Your task to perform on an android device: turn vacation reply on in the gmail app Image 0: 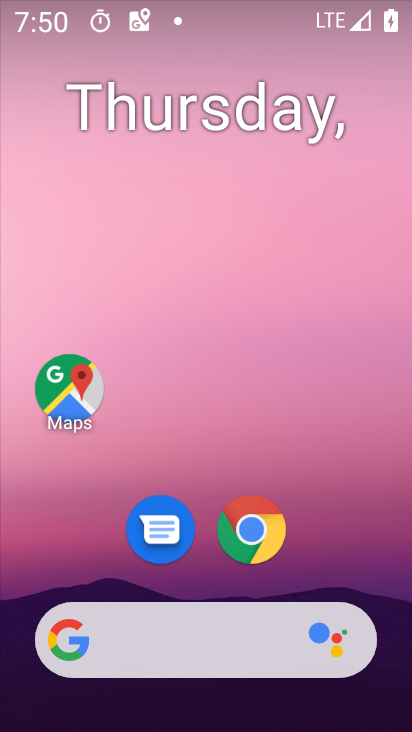
Step 0: drag from (386, 559) to (372, 158)
Your task to perform on an android device: turn vacation reply on in the gmail app Image 1: 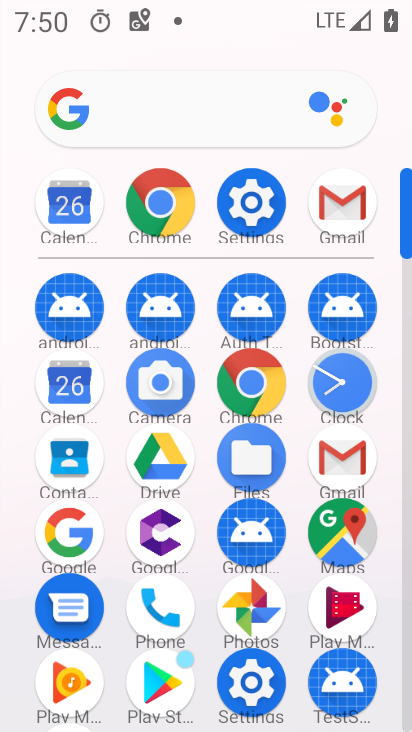
Step 1: click (357, 458)
Your task to perform on an android device: turn vacation reply on in the gmail app Image 2: 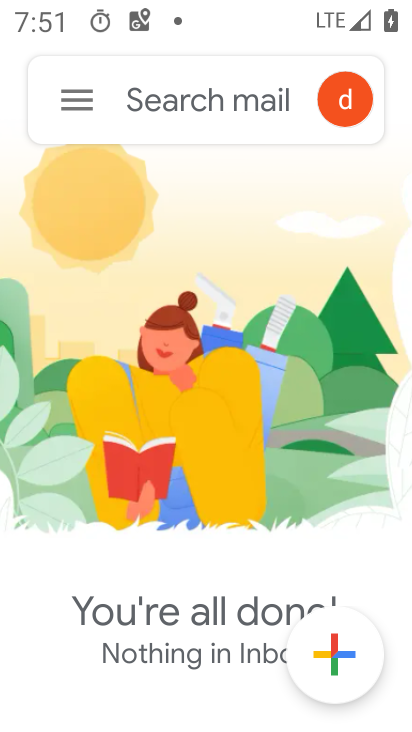
Step 2: click (75, 97)
Your task to perform on an android device: turn vacation reply on in the gmail app Image 3: 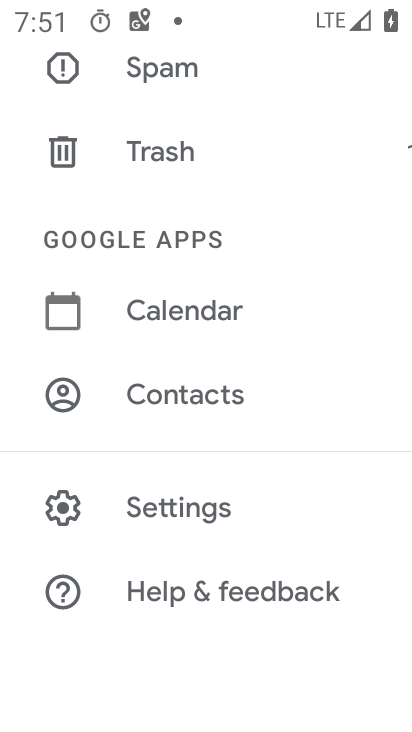
Step 3: drag from (333, 208) to (333, 318)
Your task to perform on an android device: turn vacation reply on in the gmail app Image 4: 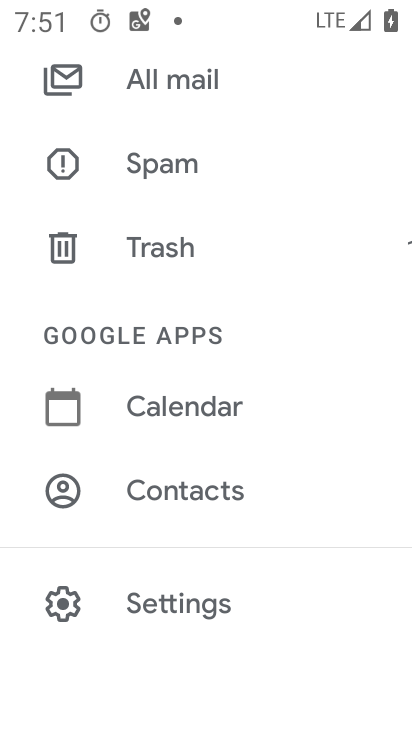
Step 4: drag from (334, 200) to (331, 324)
Your task to perform on an android device: turn vacation reply on in the gmail app Image 5: 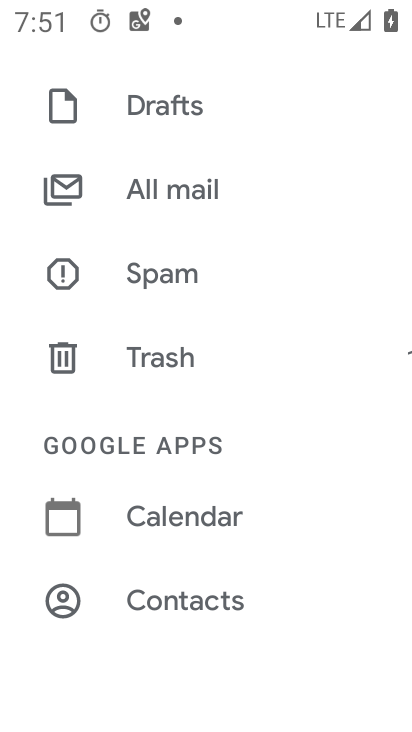
Step 5: drag from (329, 202) to (331, 312)
Your task to perform on an android device: turn vacation reply on in the gmail app Image 6: 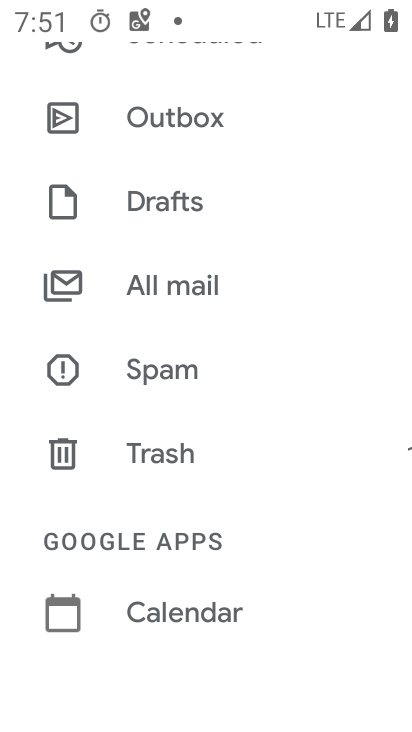
Step 6: drag from (353, 185) to (358, 296)
Your task to perform on an android device: turn vacation reply on in the gmail app Image 7: 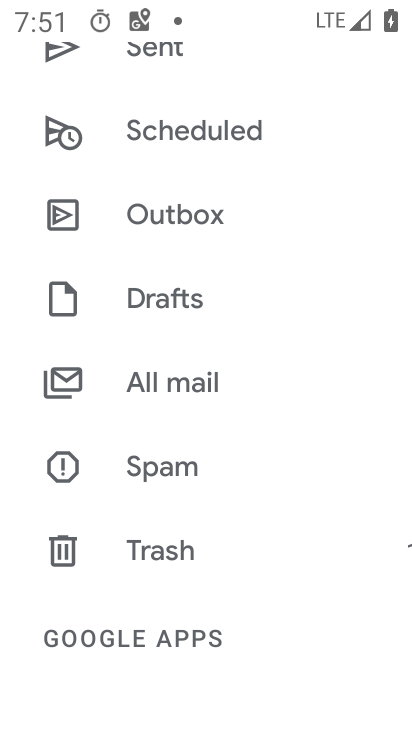
Step 7: drag from (351, 198) to (351, 293)
Your task to perform on an android device: turn vacation reply on in the gmail app Image 8: 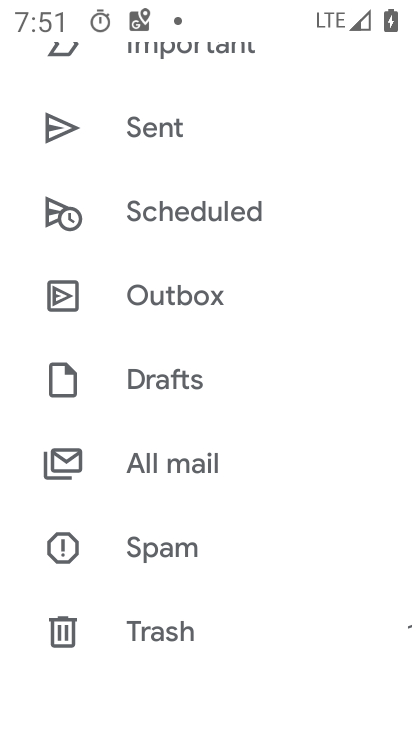
Step 8: drag from (350, 204) to (352, 298)
Your task to perform on an android device: turn vacation reply on in the gmail app Image 9: 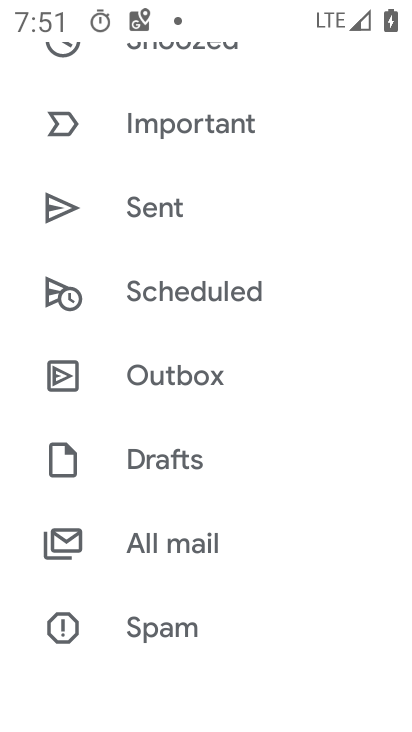
Step 9: drag from (345, 211) to (345, 294)
Your task to perform on an android device: turn vacation reply on in the gmail app Image 10: 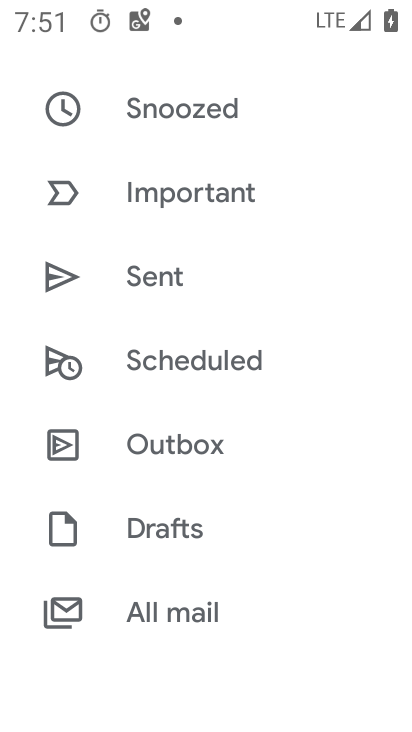
Step 10: drag from (345, 225) to (348, 328)
Your task to perform on an android device: turn vacation reply on in the gmail app Image 11: 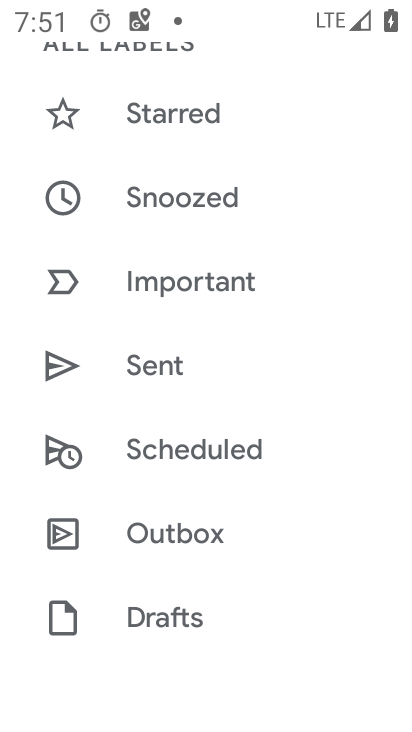
Step 11: drag from (354, 219) to (343, 346)
Your task to perform on an android device: turn vacation reply on in the gmail app Image 12: 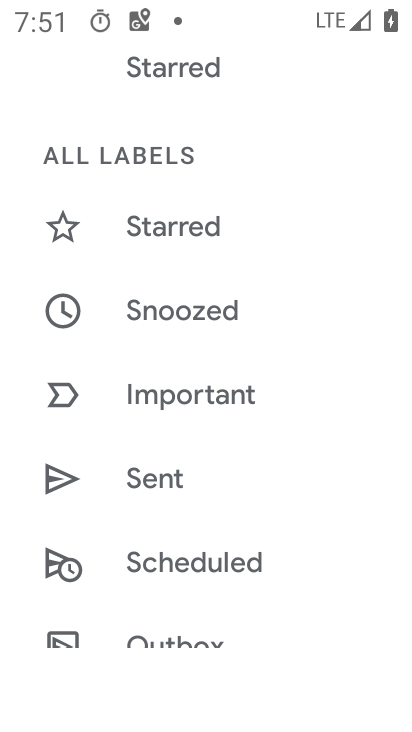
Step 12: drag from (344, 159) to (342, 306)
Your task to perform on an android device: turn vacation reply on in the gmail app Image 13: 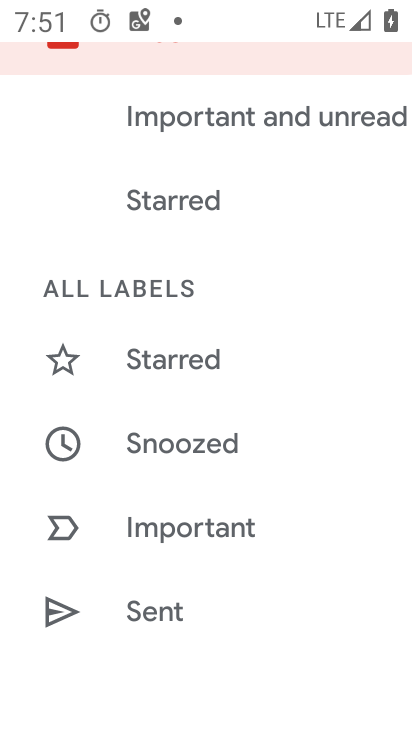
Step 13: drag from (348, 182) to (340, 303)
Your task to perform on an android device: turn vacation reply on in the gmail app Image 14: 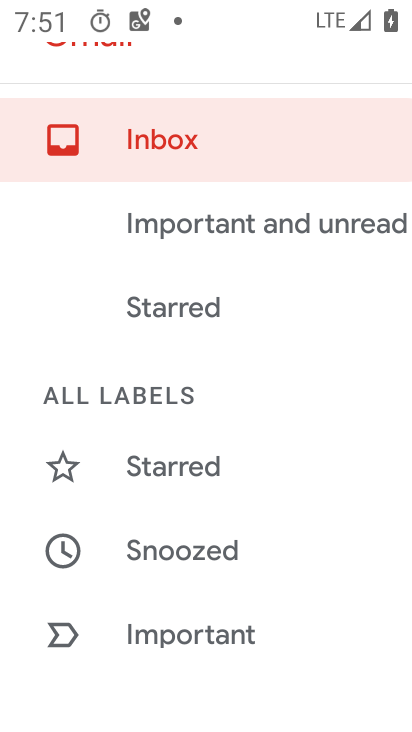
Step 14: drag from (341, 362) to (329, 260)
Your task to perform on an android device: turn vacation reply on in the gmail app Image 15: 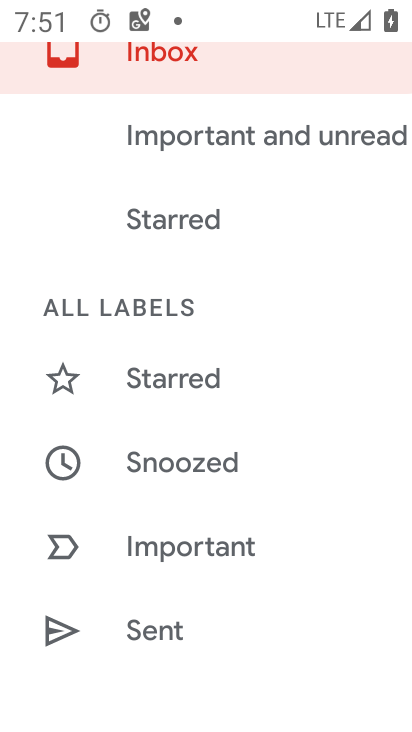
Step 15: drag from (329, 394) to (327, 283)
Your task to perform on an android device: turn vacation reply on in the gmail app Image 16: 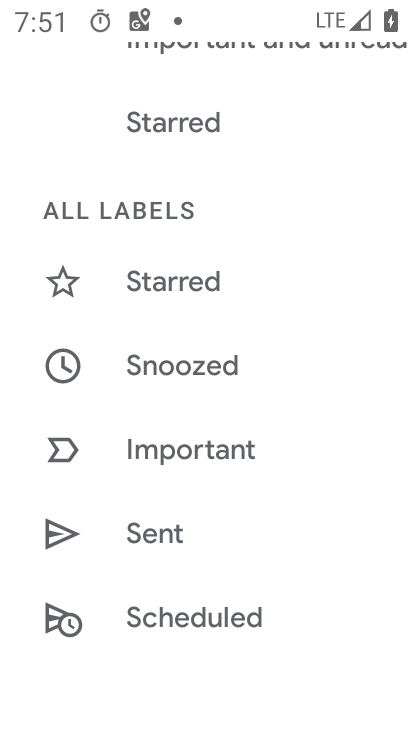
Step 16: drag from (326, 397) to (331, 293)
Your task to perform on an android device: turn vacation reply on in the gmail app Image 17: 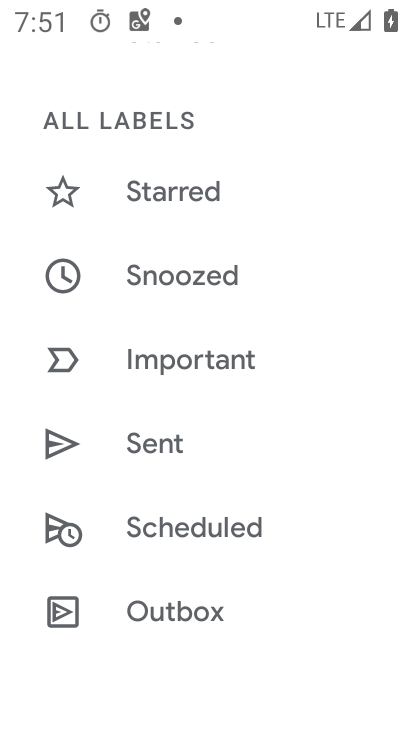
Step 17: drag from (342, 427) to (339, 316)
Your task to perform on an android device: turn vacation reply on in the gmail app Image 18: 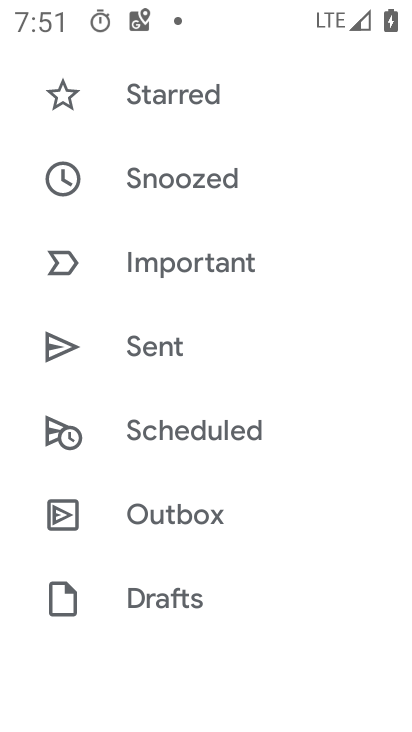
Step 18: drag from (332, 449) to (337, 353)
Your task to perform on an android device: turn vacation reply on in the gmail app Image 19: 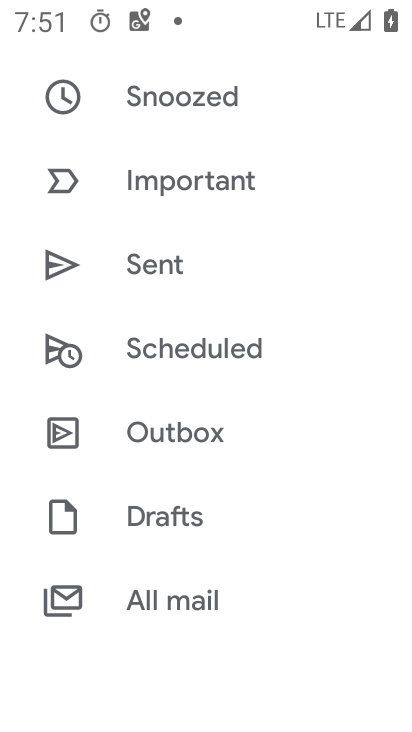
Step 19: drag from (336, 462) to (342, 348)
Your task to perform on an android device: turn vacation reply on in the gmail app Image 20: 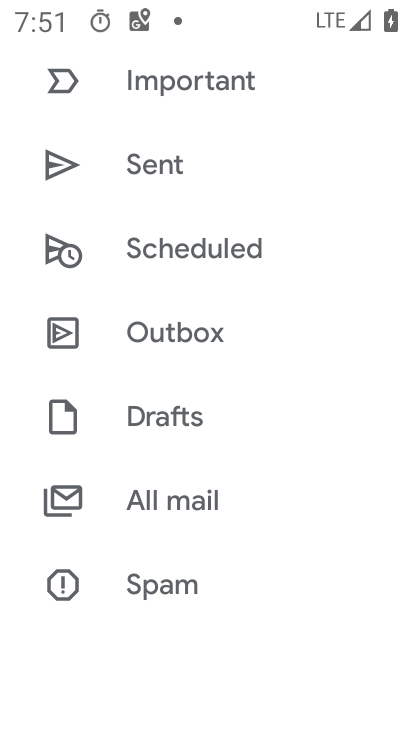
Step 20: drag from (347, 488) to (352, 342)
Your task to perform on an android device: turn vacation reply on in the gmail app Image 21: 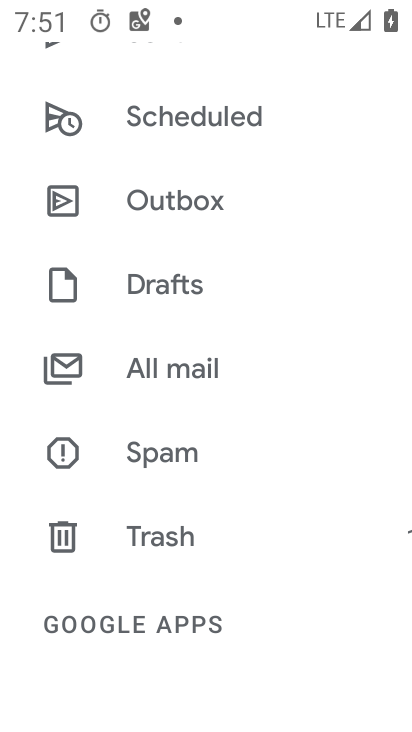
Step 21: drag from (355, 507) to (349, 289)
Your task to perform on an android device: turn vacation reply on in the gmail app Image 22: 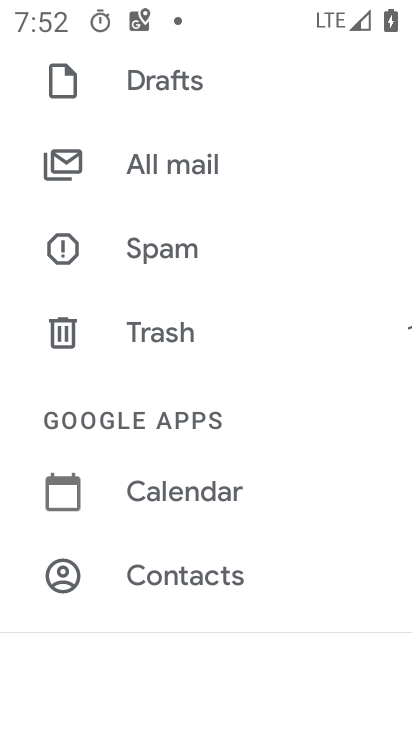
Step 22: drag from (357, 507) to (347, 274)
Your task to perform on an android device: turn vacation reply on in the gmail app Image 23: 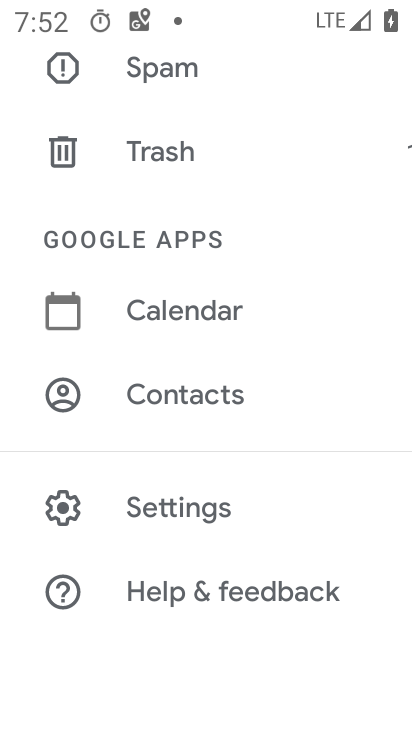
Step 23: click (294, 530)
Your task to perform on an android device: turn vacation reply on in the gmail app Image 24: 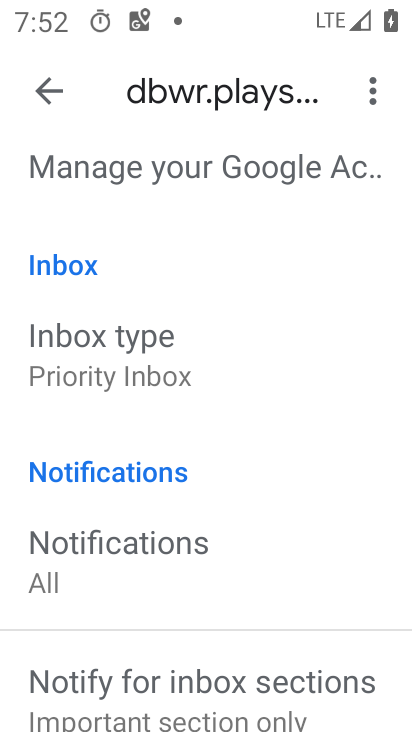
Step 24: drag from (294, 530) to (303, 425)
Your task to perform on an android device: turn vacation reply on in the gmail app Image 25: 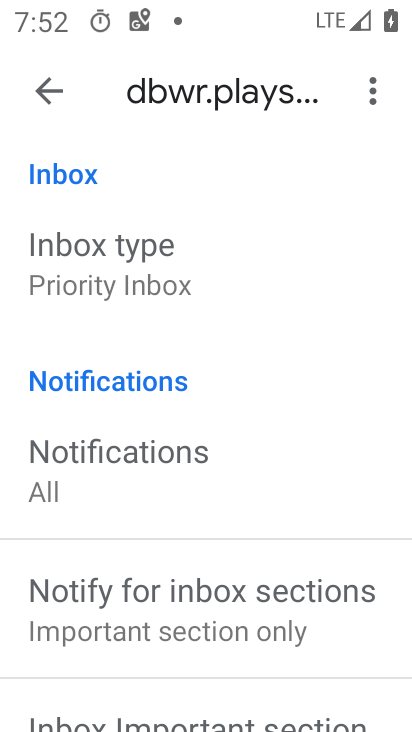
Step 25: drag from (321, 551) to (339, 451)
Your task to perform on an android device: turn vacation reply on in the gmail app Image 26: 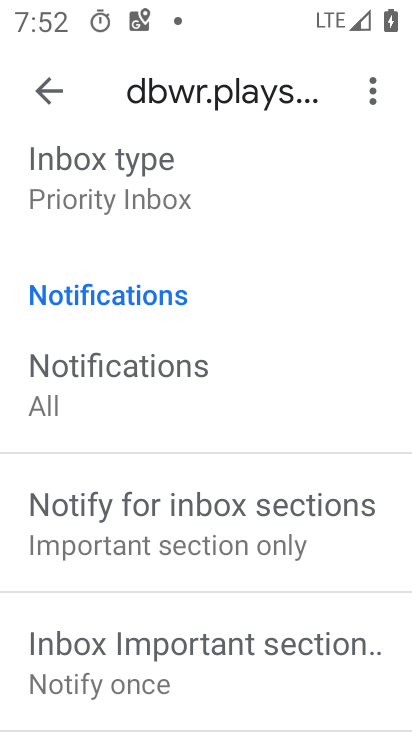
Step 26: drag from (347, 576) to (354, 463)
Your task to perform on an android device: turn vacation reply on in the gmail app Image 27: 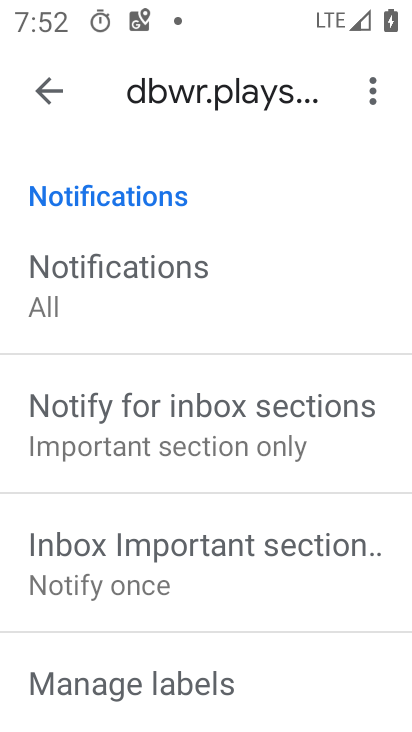
Step 27: drag from (346, 606) to (354, 498)
Your task to perform on an android device: turn vacation reply on in the gmail app Image 28: 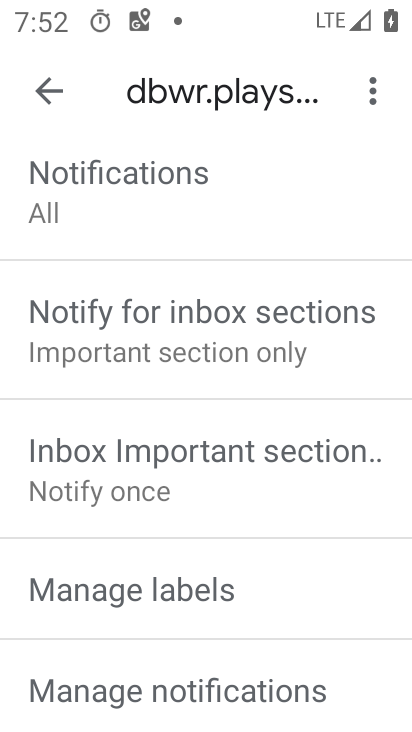
Step 28: drag from (348, 604) to (351, 512)
Your task to perform on an android device: turn vacation reply on in the gmail app Image 29: 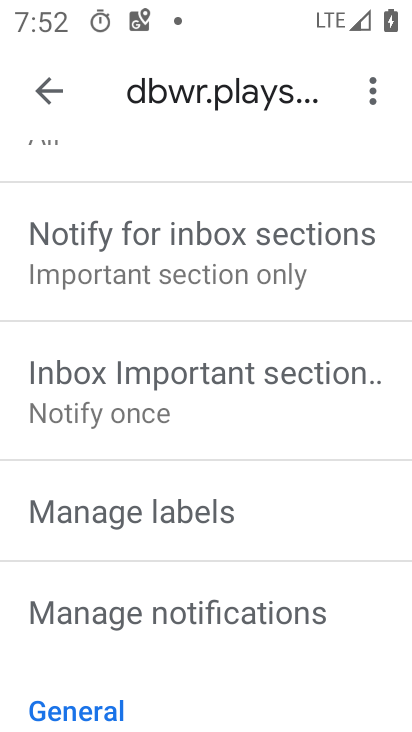
Step 29: drag from (349, 632) to (349, 532)
Your task to perform on an android device: turn vacation reply on in the gmail app Image 30: 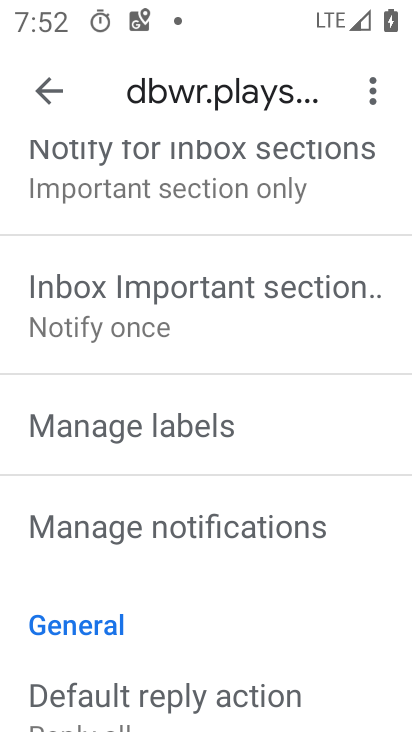
Step 30: drag from (352, 622) to (359, 531)
Your task to perform on an android device: turn vacation reply on in the gmail app Image 31: 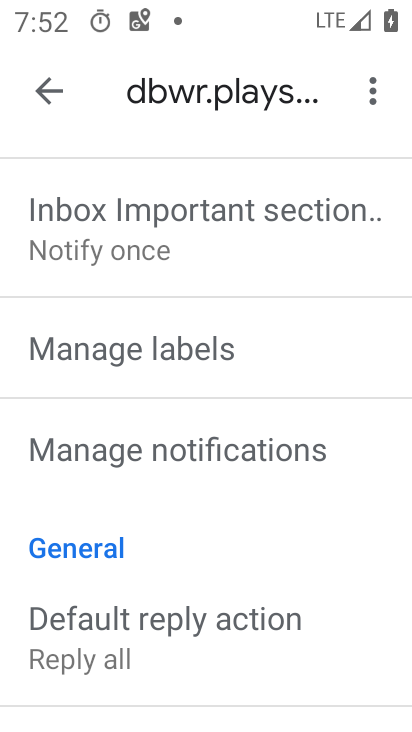
Step 31: drag from (361, 634) to (365, 540)
Your task to perform on an android device: turn vacation reply on in the gmail app Image 32: 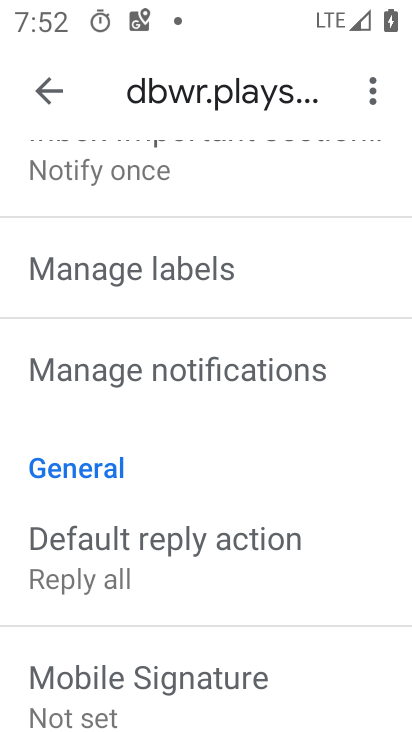
Step 32: drag from (349, 643) to (354, 549)
Your task to perform on an android device: turn vacation reply on in the gmail app Image 33: 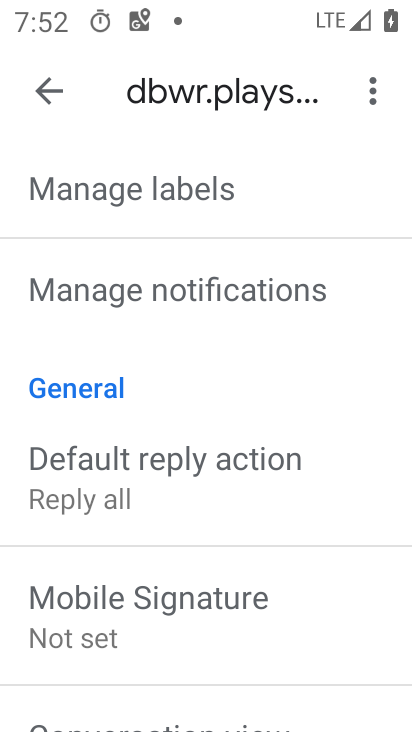
Step 33: drag from (345, 633) to (355, 535)
Your task to perform on an android device: turn vacation reply on in the gmail app Image 34: 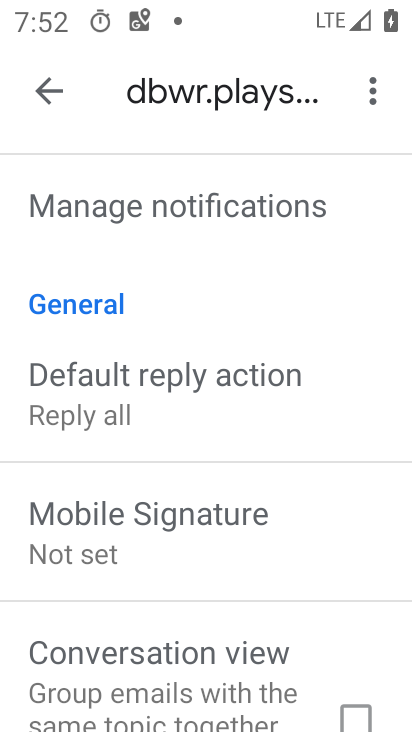
Step 34: drag from (371, 525) to (371, 451)
Your task to perform on an android device: turn vacation reply on in the gmail app Image 35: 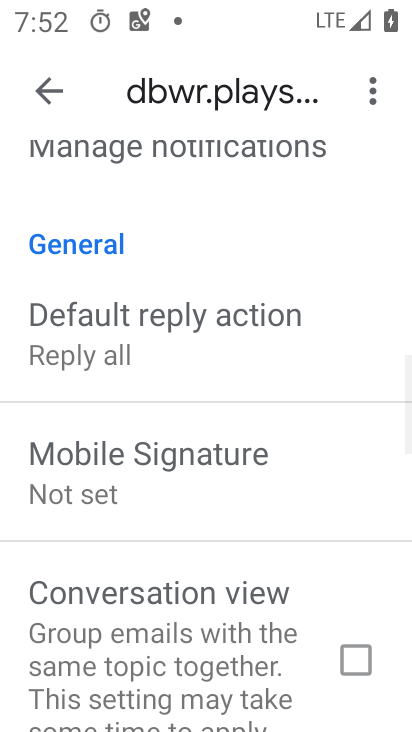
Step 35: drag from (342, 575) to (340, 462)
Your task to perform on an android device: turn vacation reply on in the gmail app Image 36: 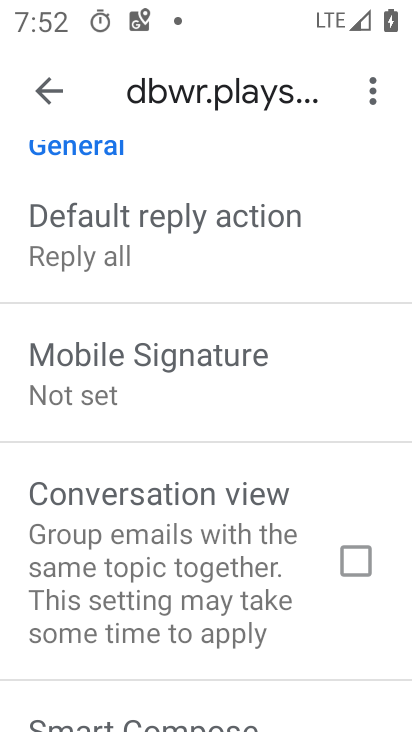
Step 36: drag from (318, 609) to (327, 493)
Your task to perform on an android device: turn vacation reply on in the gmail app Image 37: 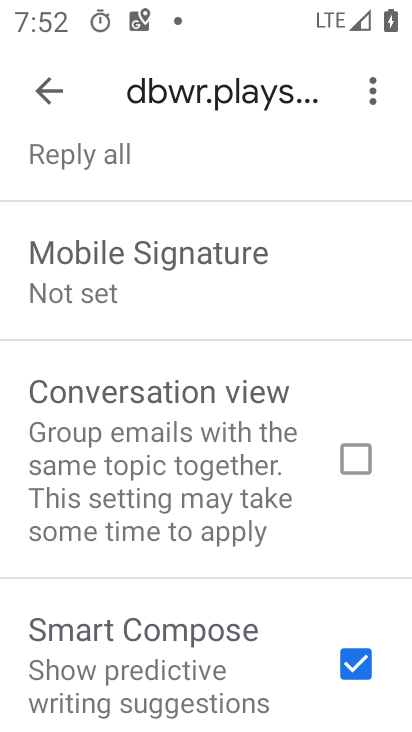
Step 37: drag from (312, 630) to (317, 486)
Your task to perform on an android device: turn vacation reply on in the gmail app Image 38: 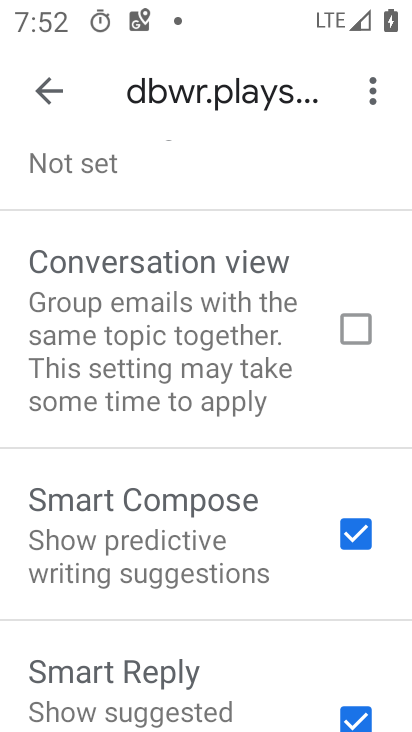
Step 38: drag from (314, 649) to (321, 512)
Your task to perform on an android device: turn vacation reply on in the gmail app Image 39: 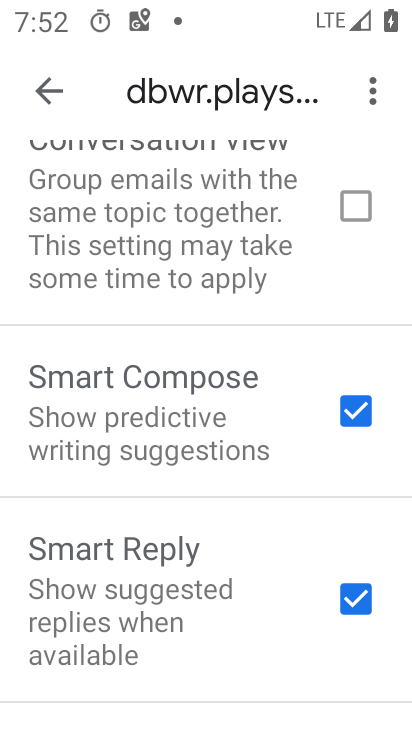
Step 39: drag from (311, 651) to (311, 551)
Your task to perform on an android device: turn vacation reply on in the gmail app Image 40: 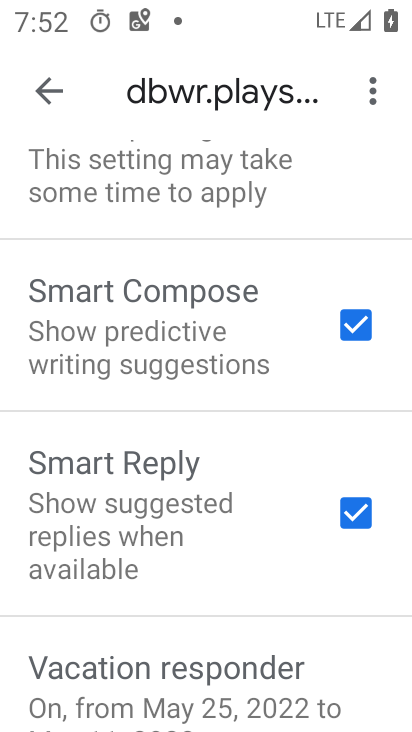
Step 40: drag from (316, 664) to (327, 513)
Your task to perform on an android device: turn vacation reply on in the gmail app Image 41: 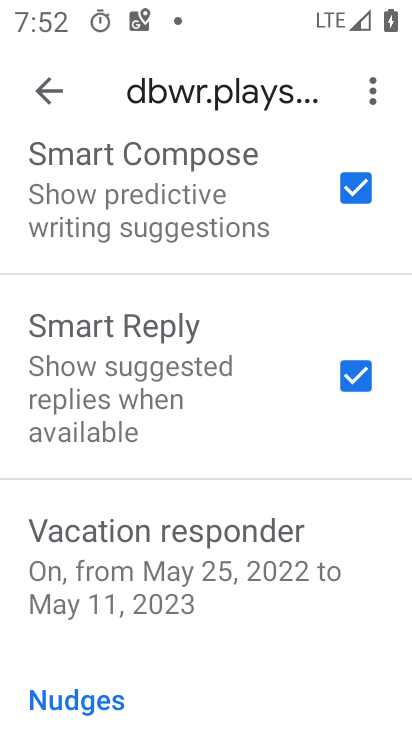
Step 41: drag from (333, 654) to (346, 516)
Your task to perform on an android device: turn vacation reply on in the gmail app Image 42: 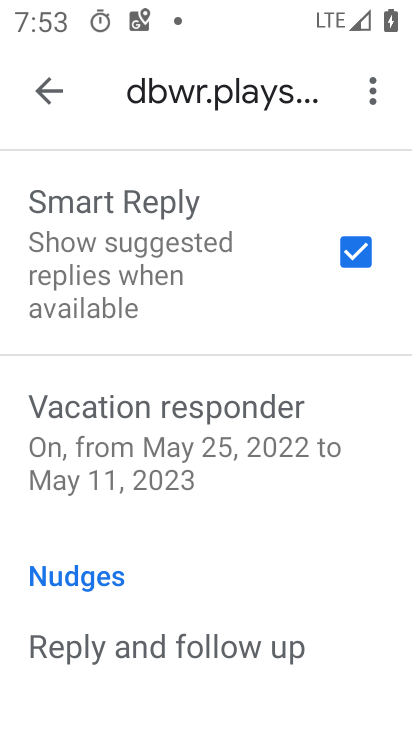
Step 42: click (301, 480)
Your task to perform on an android device: turn vacation reply on in the gmail app Image 43: 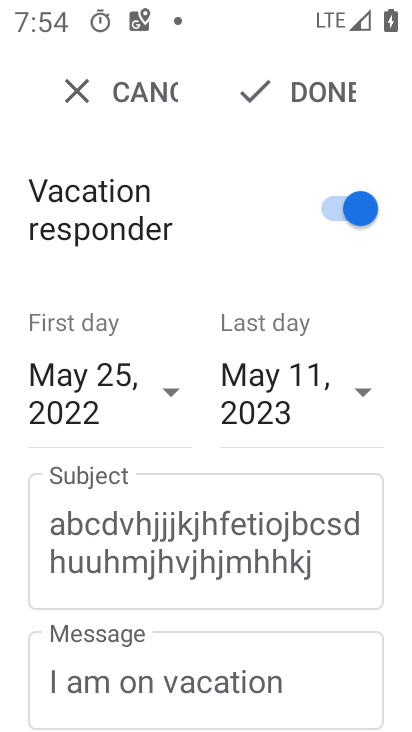
Step 43: task complete